Your task to perform on an android device: What's the news in Pakistan? Image 0: 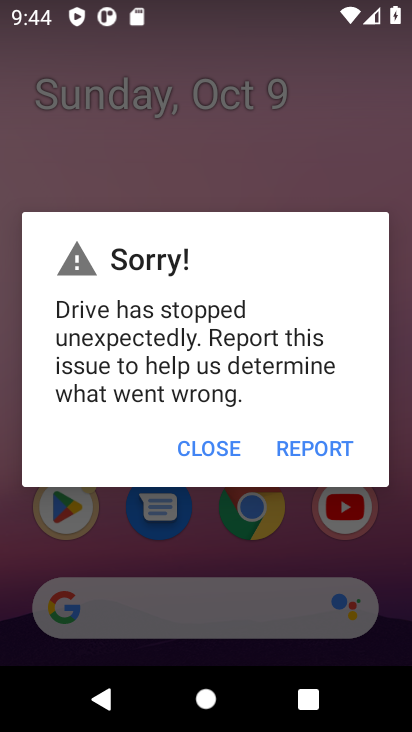
Step 0: press home button
Your task to perform on an android device: What's the news in Pakistan? Image 1: 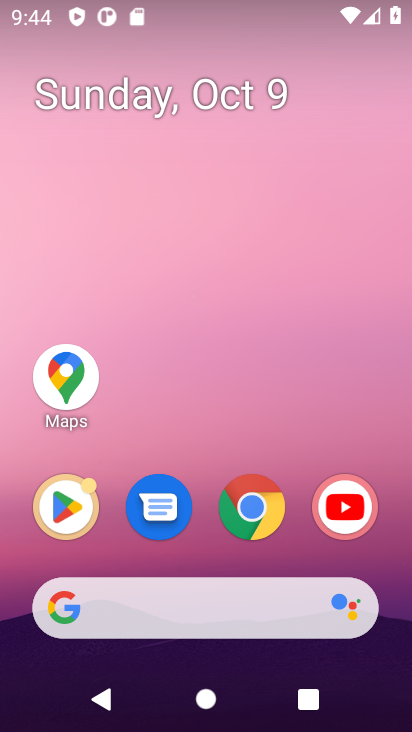
Step 1: drag from (208, 555) to (180, 77)
Your task to perform on an android device: What's the news in Pakistan? Image 2: 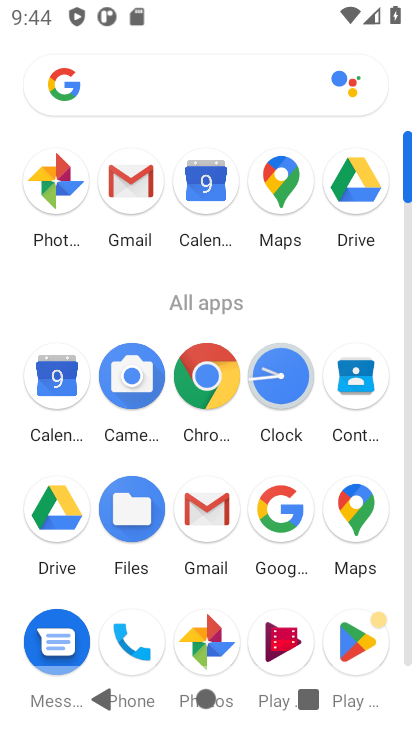
Step 2: click (208, 379)
Your task to perform on an android device: What's the news in Pakistan? Image 3: 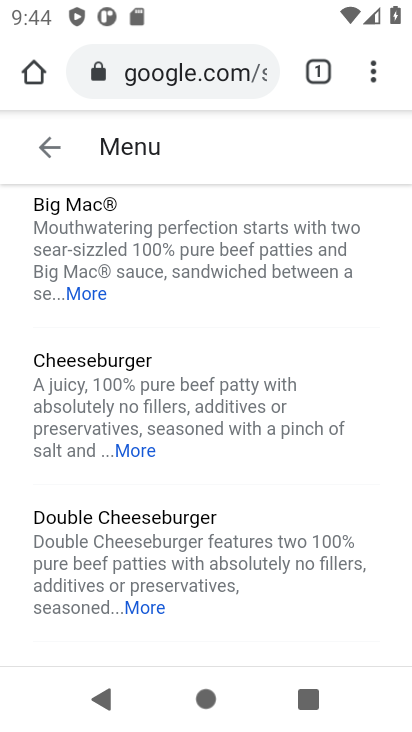
Step 3: click (183, 44)
Your task to perform on an android device: What's the news in Pakistan? Image 4: 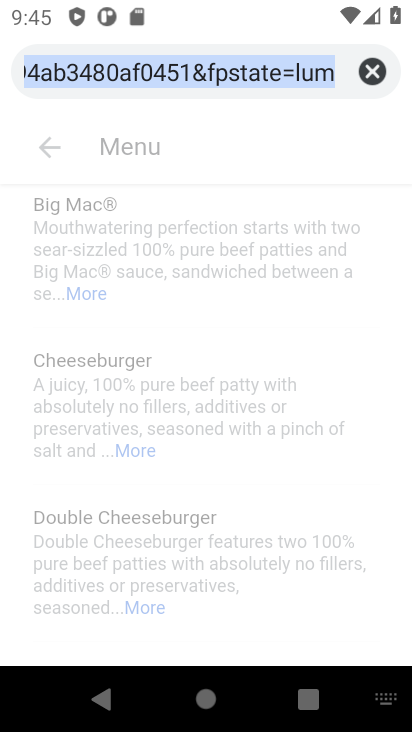
Step 4: type "What's the news in Pakistan?"
Your task to perform on an android device: What's the news in Pakistan? Image 5: 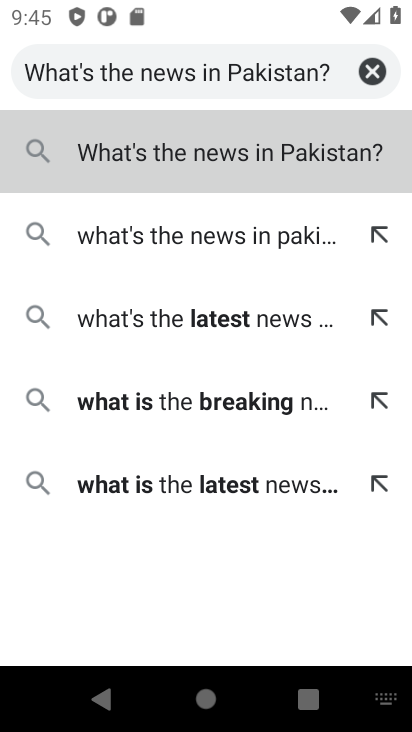
Step 5: press enter
Your task to perform on an android device: What's the news in Pakistan? Image 6: 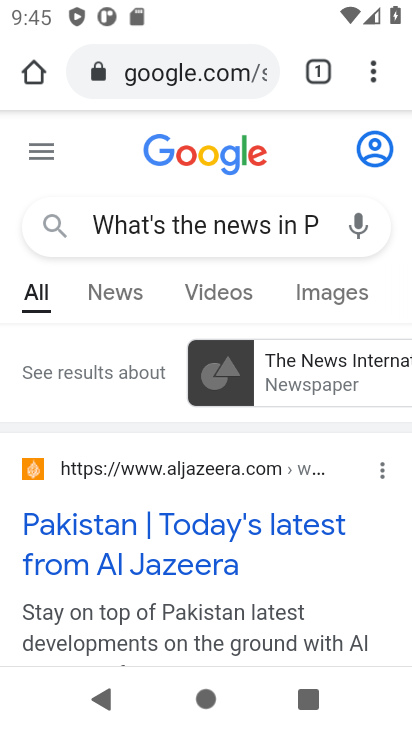
Step 6: click (179, 546)
Your task to perform on an android device: What's the news in Pakistan? Image 7: 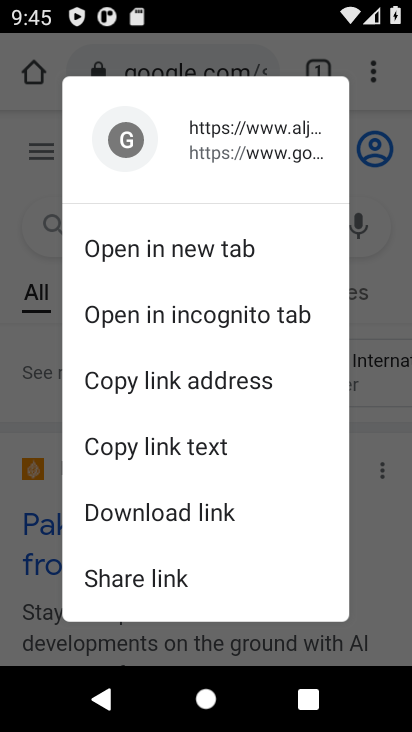
Step 7: click (54, 531)
Your task to perform on an android device: What's the news in Pakistan? Image 8: 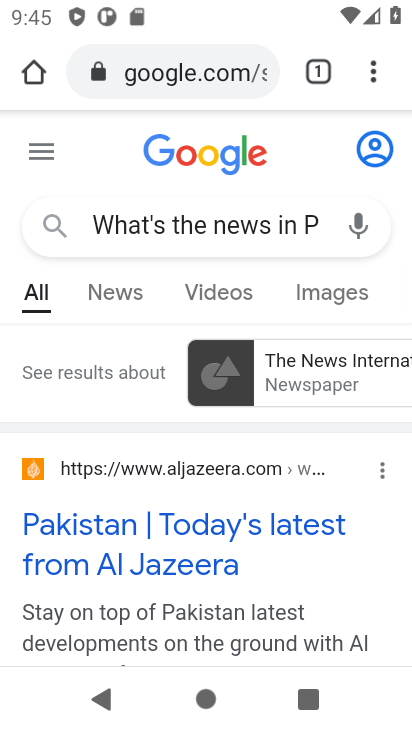
Step 8: click (54, 531)
Your task to perform on an android device: What's the news in Pakistan? Image 9: 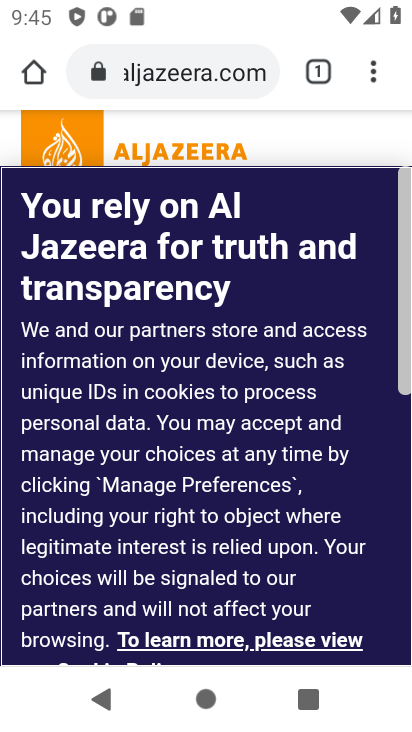
Step 9: drag from (230, 142) to (229, 13)
Your task to perform on an android device: What's the news in Pakistan? Image 10: 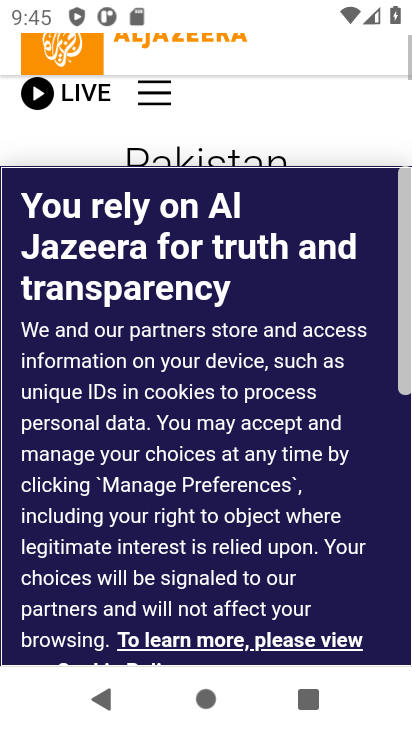
Step 10: drag from (260, 417) to (235, 110)
Your task to perform on an android device: What's the news in Pakistan? Image 11: 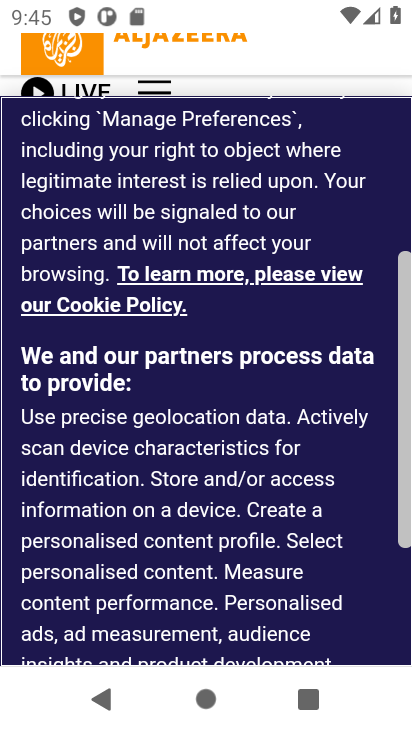
Step 11: drag from (184, 462) to (185, 50)
Your task to perform on an android device: What's the news in Pakistan? Image 12: 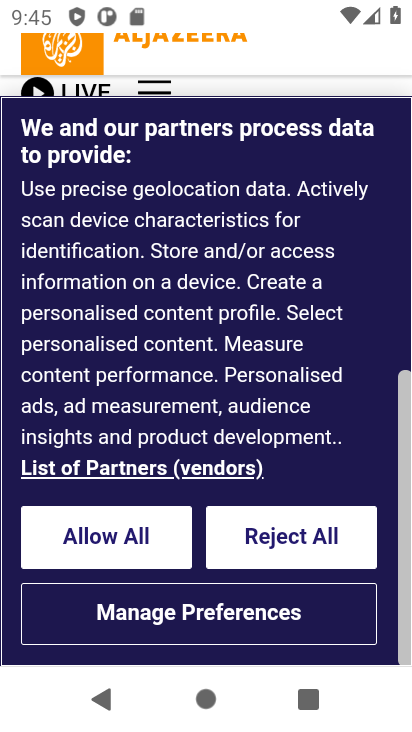
Step 12: click (169, 531)
Your task to perform on an android device: What's the news in Pakistan? Image 13: 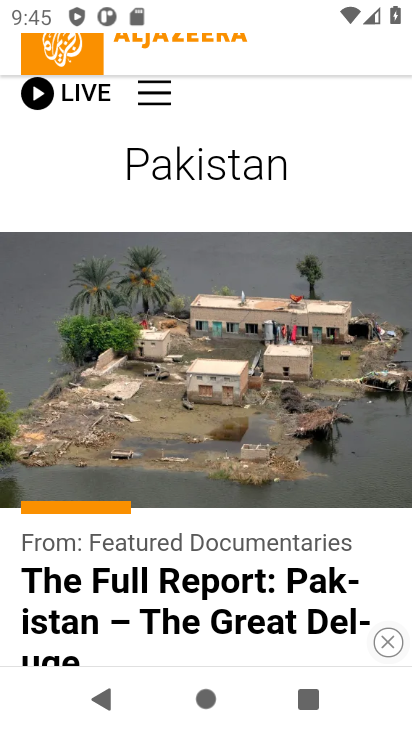
Step 13: task complete